Your task to perform on an android device: search for starred emails in the gmail app Image 0: 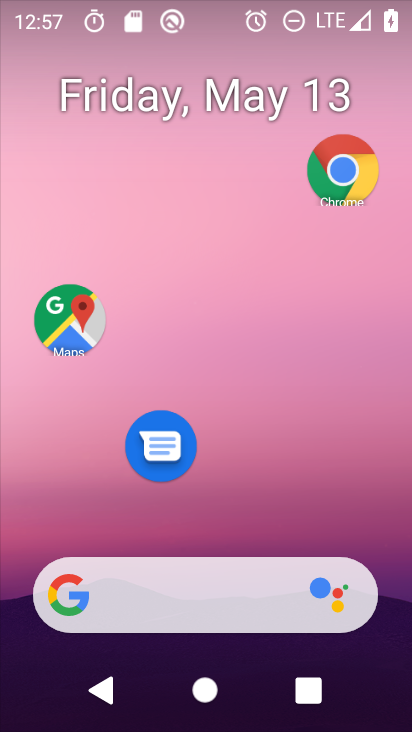
Step 0: drag from (288, 622) to (361, 53)
Your task to perform on an android device: search for starred emails in the gmail app Image 1: 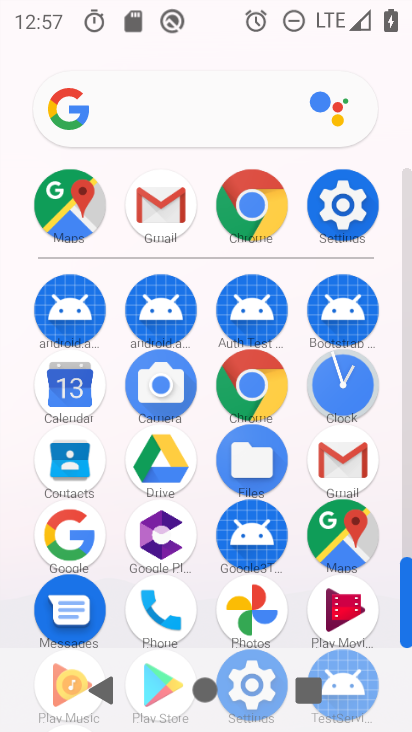
Step 1: click (256, 386)
Your task to perform on an android device: search for starred emails in the gmail app Image 2: 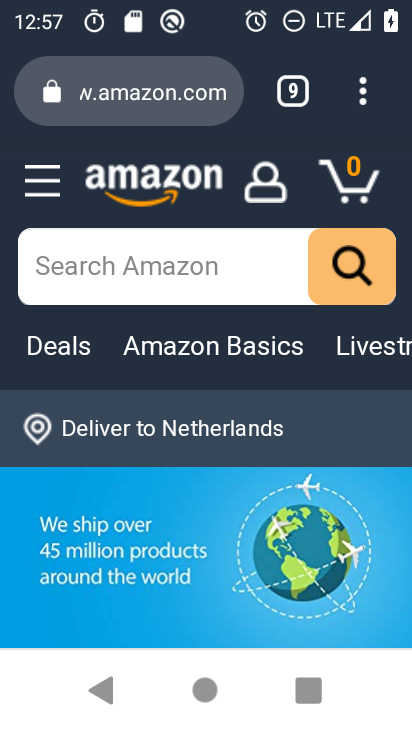
Step 2: press home button
Your task to perform on an android device: search for starred emails in the gmail app Image 3: 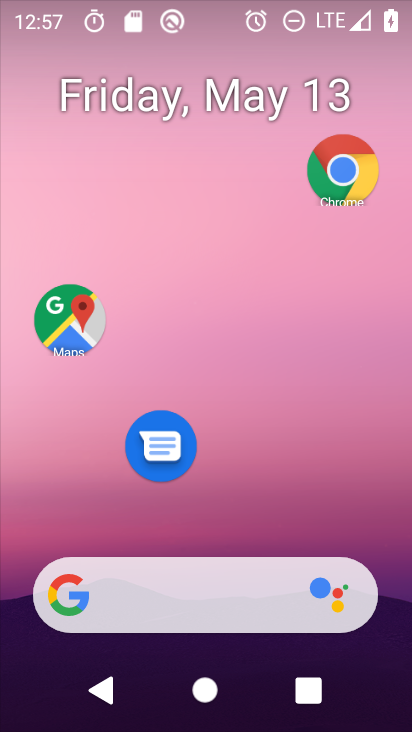
Step 3: drag from (236, 573) to (334, 1)
Your task to perform on an android device: search for starred emails in the gmail app Image 4: 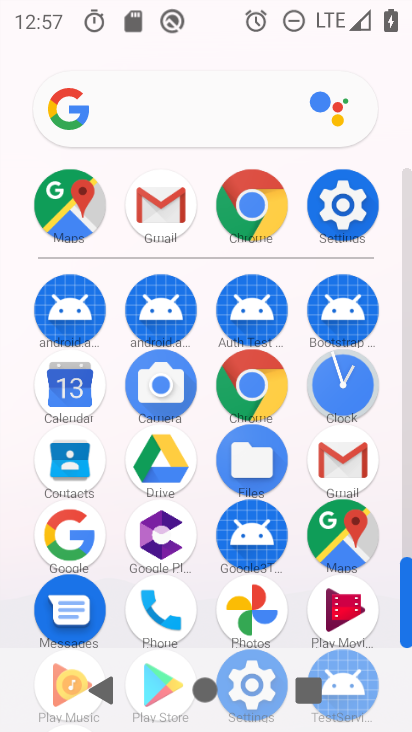
Step 4: click (332, 454)
Your task to perform on an android device: search for starred emails in the gmail app Image 5: 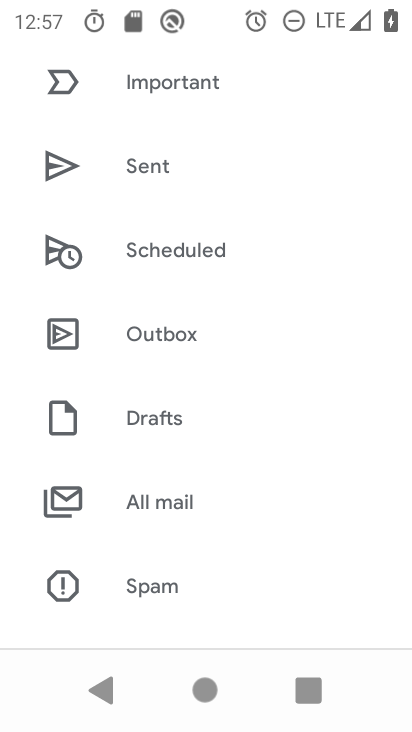
Step 5: drag from (275, 186) to (254, 658)
Your task to perform on an android device: search for starred emails in the gmail app Image 6: 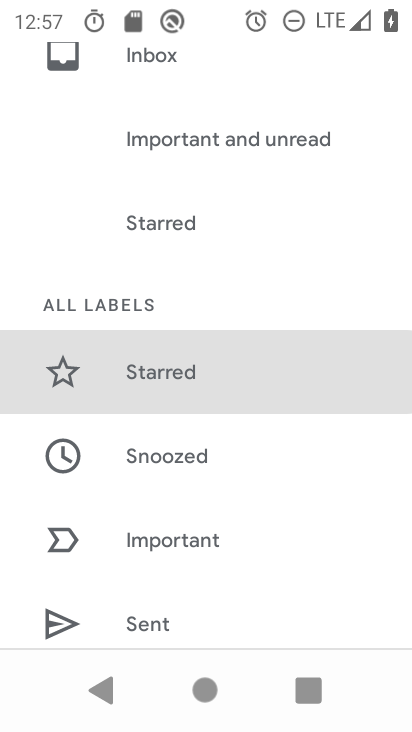
Step 6: click (224, 385)
Your task to perform on an android device: search for starred emails in the gmail app Image 7: 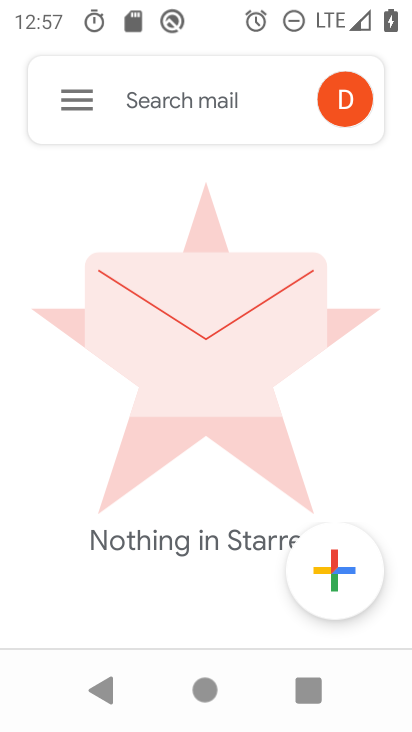
Step 7: task complete